Your task to perform on an android device: Open Android settings Image 0: 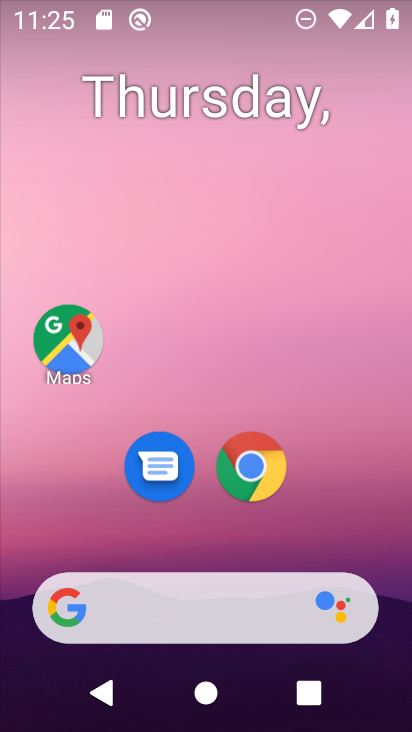
Step 0: drag from (261, 562) to (281, 21)
Your task to perform on an android device: Open Android settings Image 1: 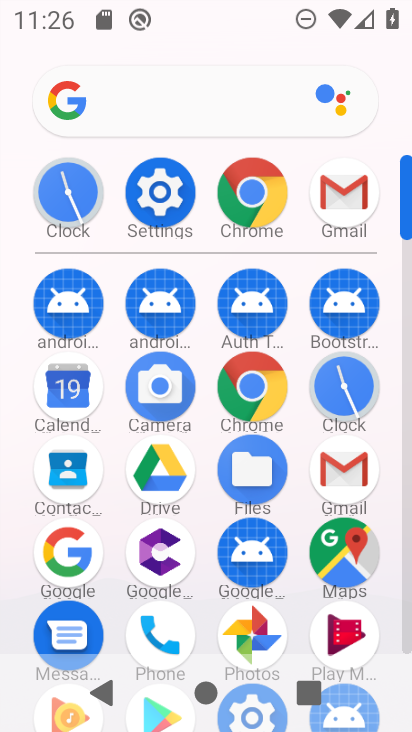
Step 1: click (153, 178)
Your task to perform on an android device: Open Android settings Image 2: 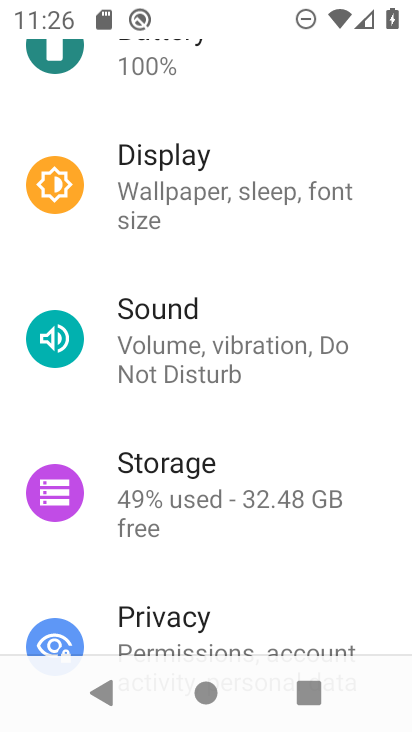
Step 2: drag from (267, 627) to (295, 189)
Your task to perform on an android device: Open Android settings Image 3: 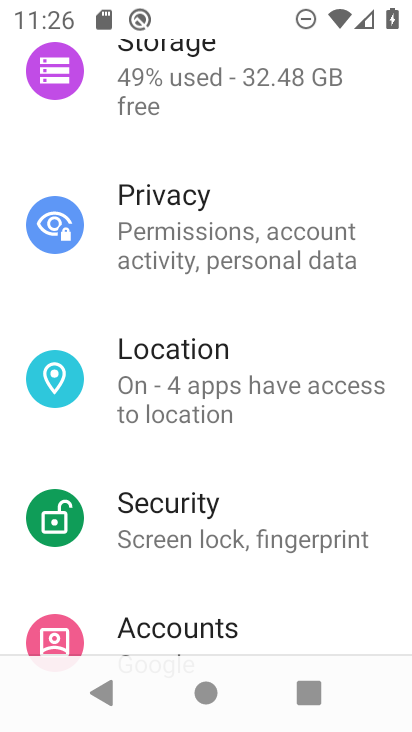
Step 3: drag from (238, 620) to (176, 182)
Your task to perform on an android device: Open Android settings Image 4: 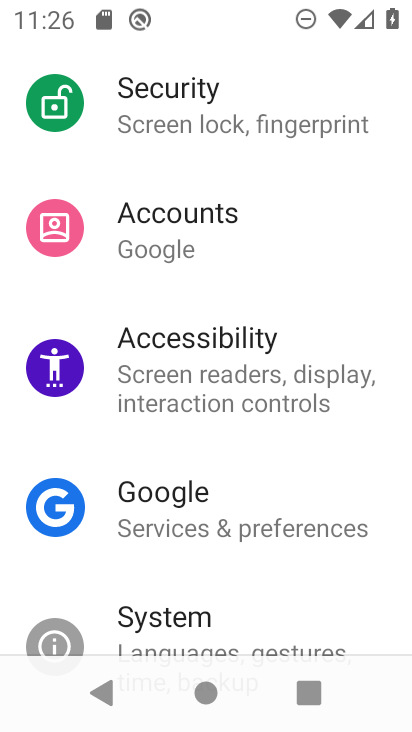
Step 4: drag from (189, 541) to (235, 132)
Your task to perform on an android device: Open Android settings Image 5: 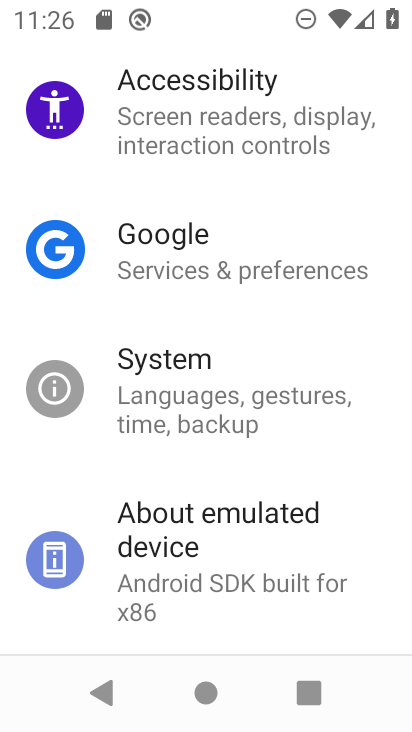
Step 5: click (257, 576)
Your task to perform on an android device: Open Android settings Image 6: 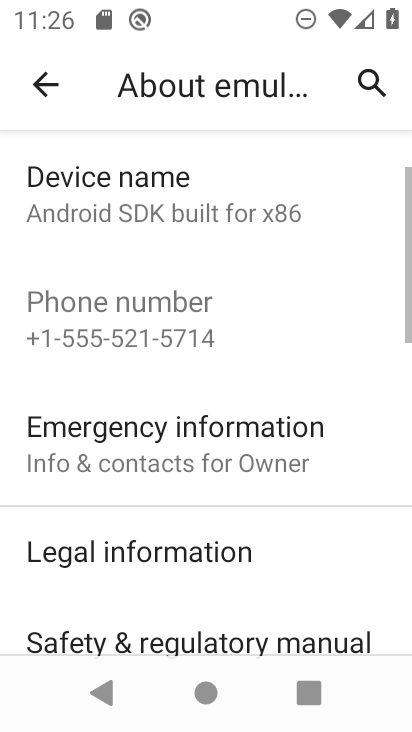
Step 6: drag from (262, 567) to (259, 286)
Your task to perform on an android device: Open Android settings Image 7: 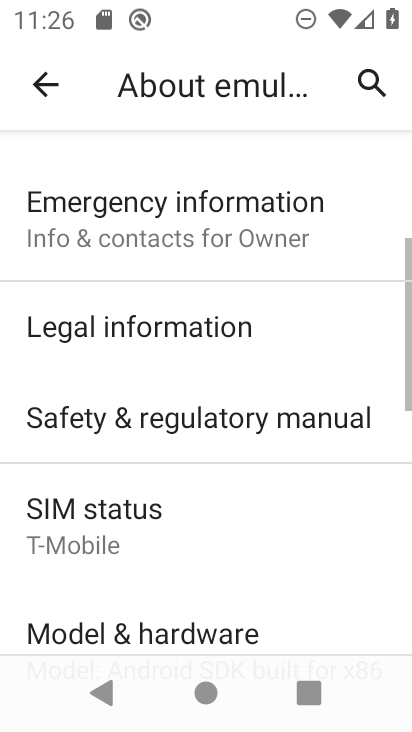
Step 7: drag from (205, 560) to (205, 159)
Your task to perform on an android device: Open Android settings Image 8: 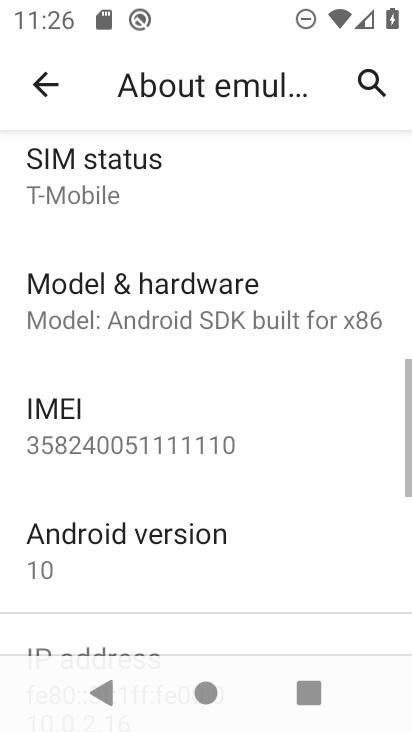
Step 8: click (158, 548)
Your task to perform on an android device: Open Android settings Image 9: 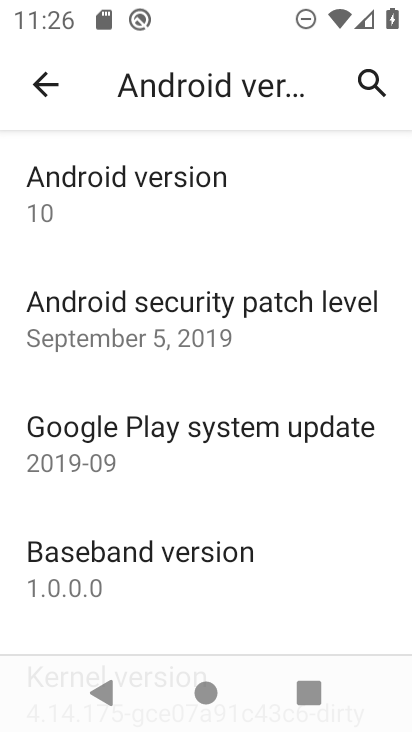
Step 9: task complete